Your task to perform on an android device: empty trash in the gmail app Image 0: 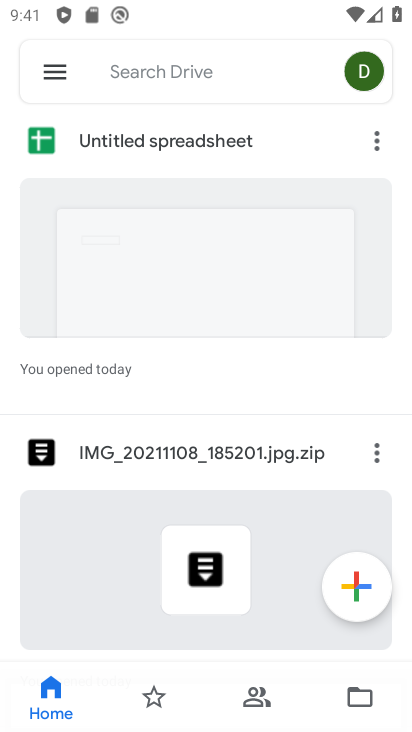
Step 0: press home button
Your task to perform on an android device: empty trash in the gmail app Image 1: 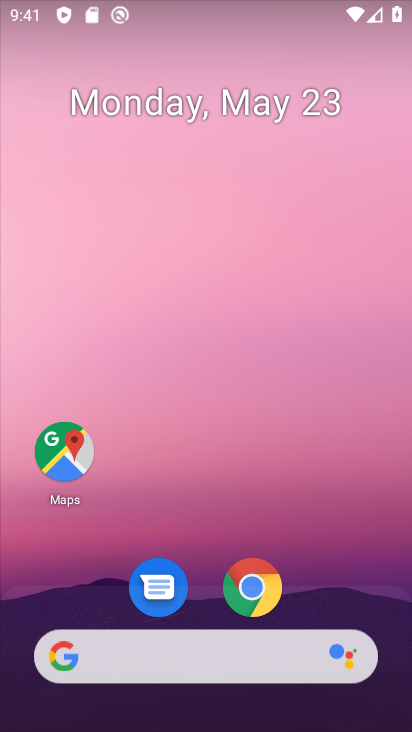
Step 1: drag from (82, 640) to (216, 151)
Your task to perform on an android device: empty trash in the gmail app Image 2: 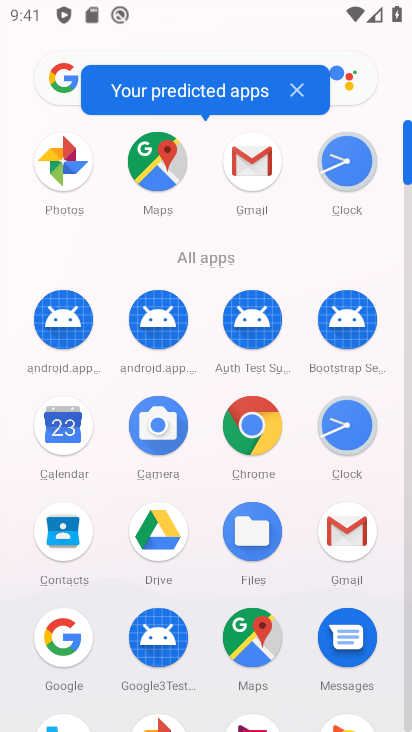
Step 2: drag from (143, 601) to (203, 365)
Your task to perform on an android device: empty trash in the gmail app Image 3: 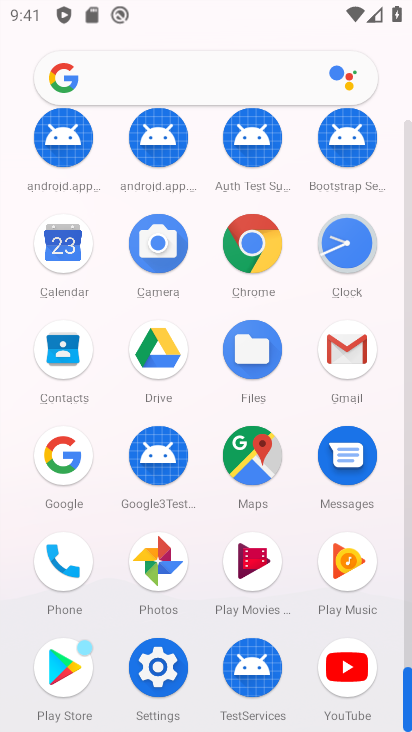
Step 3: click (157, 570)
Your task to perform on an android device: empty trash in the gmail app Image 4: 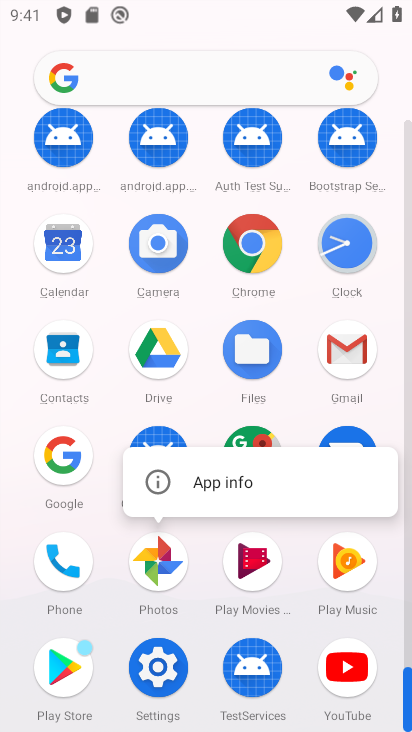
Step 4: click (159, 580)
Your task to perform on an android device: empty trash in the gmail app Image 5: 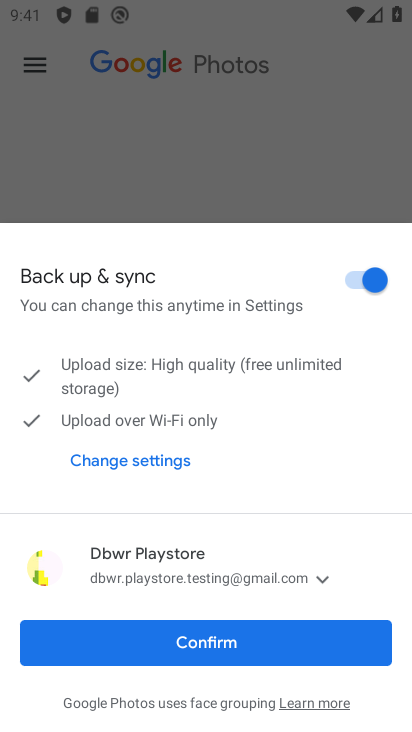
Step 5: click (242, 654)
Your task to perform on an android device: empty trash in the gmail app Image 6: 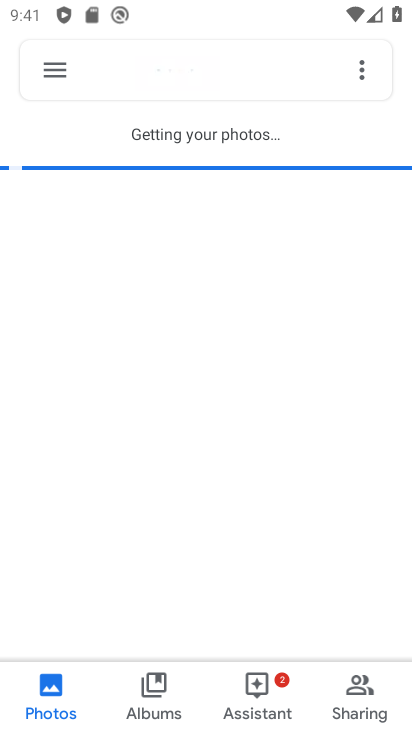
Step 6: click (57, 74)
Your task to perform on an android device: empty trash in the gmail app Image 7: 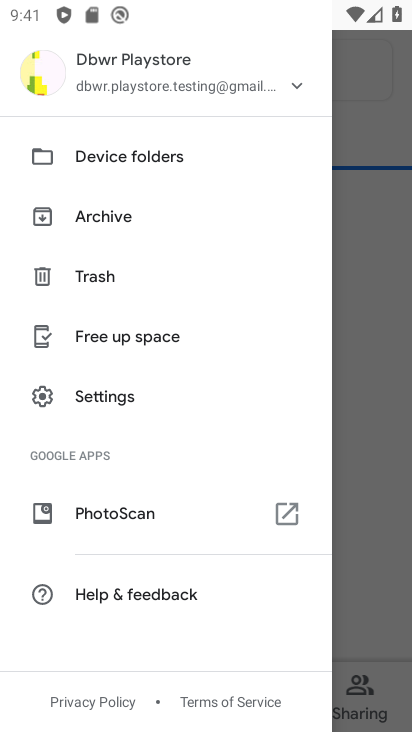
Step 7: click (150, 281)
Your task to perform on an android device: empty trash in the gmail app Image 8: 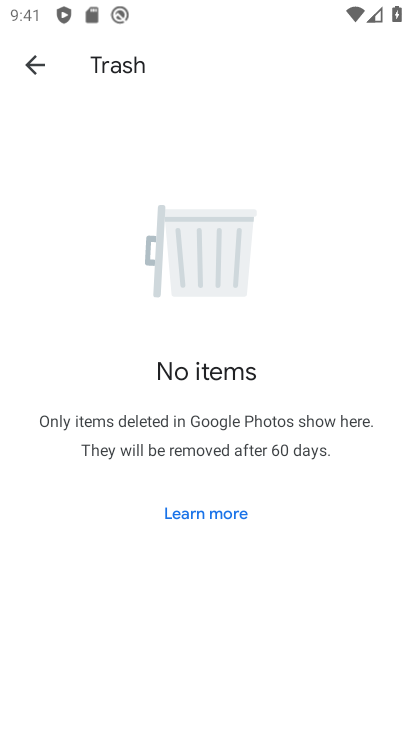
Step 8: task complete